Your task to perform on an android device: turn off wifi Image 0: 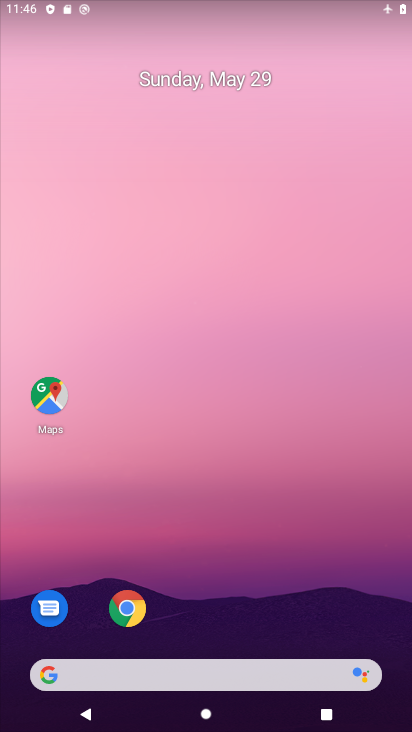
Step 0: drag from (212, 646) to (195, 168)
Your task to perform on an android device: turn off wifi Image 1: 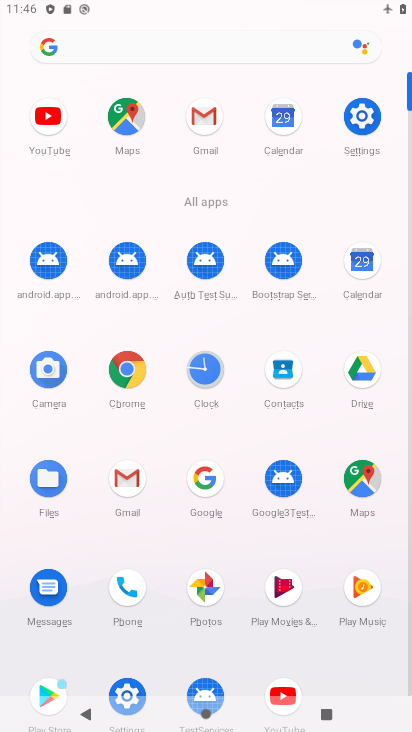
Step 1: click (364, 119)
Your task to perform on an android device: turn off wifi Image 2: 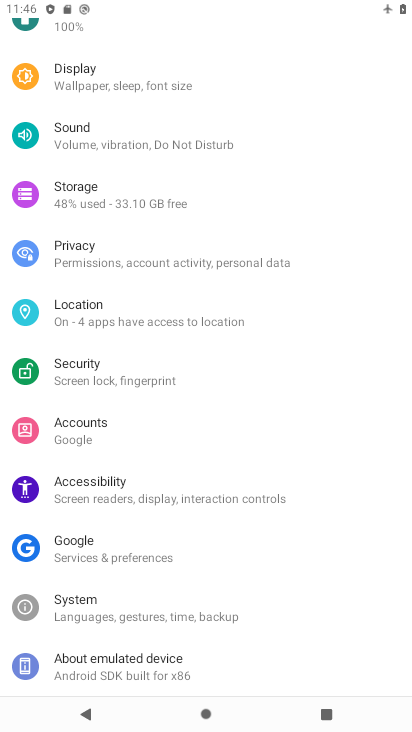
Step 2: drag from (165, 125) to (156, 546)
Your task to perform on an android device: turn off wifi Image 3: 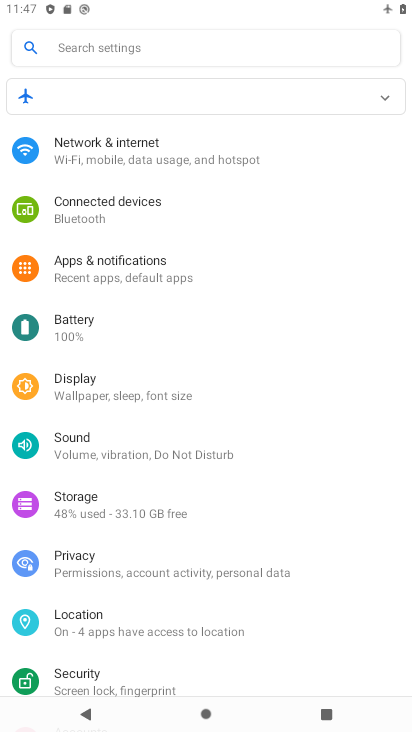
Step 3: click (88, 158)
Your task to perform on an android device: turn off wifi Image 4: 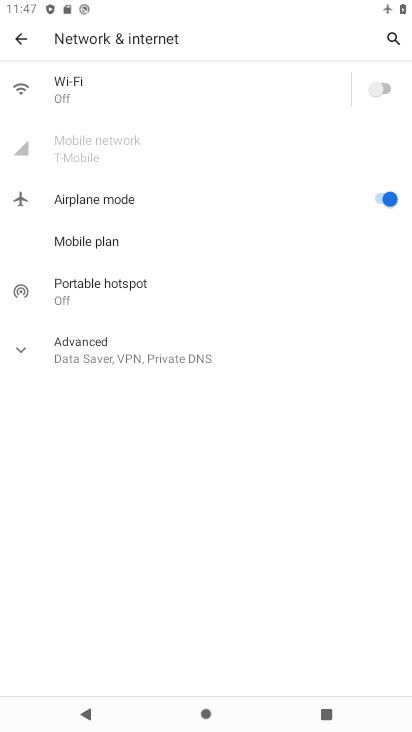
Step 4: task complete